Your task to perform on an android device: Open Google Chrome and click the shortcut for Amazon.com Image 0: 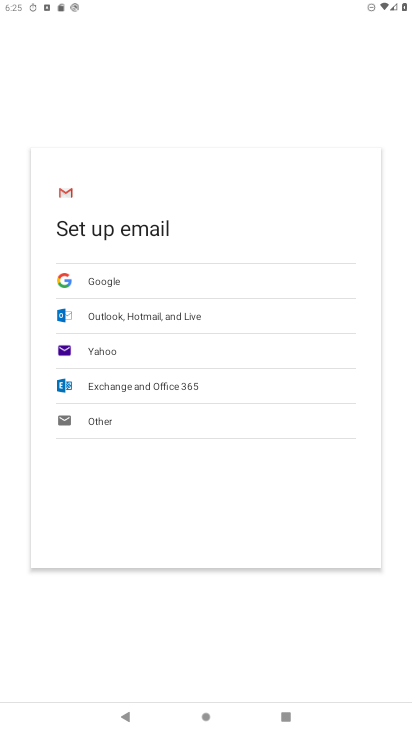
Step 0: press home button
Your task to perform on an android device: Open Google Chrome and click the shortcut for Amazon.com Image 1: 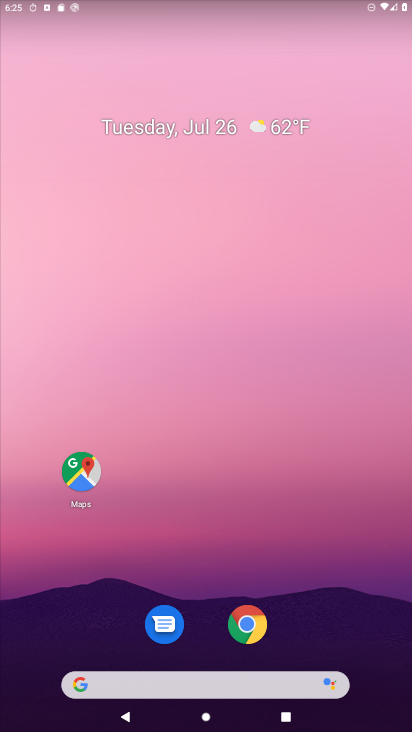
Step 1: drag from (264, 668) to (276, 14)
Your task to perform on an android device: Open Google Chrome and click the shortcut for Amazon.com Image 2: 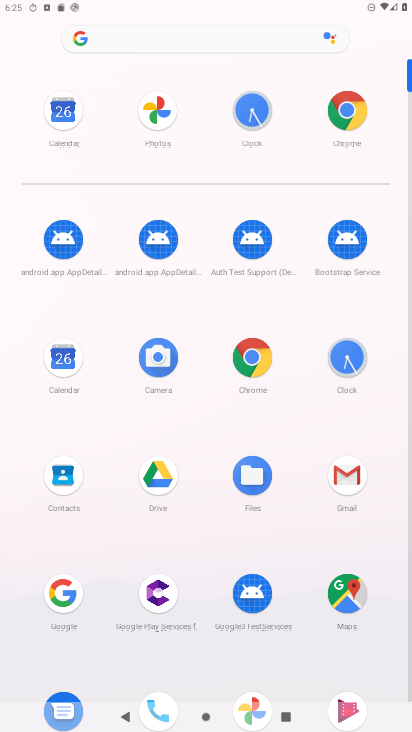
Step 2: click (259, 366)
Your task to perform on an android device: Open Google Chrome and click the shortcut for Amazon.com Image 3: 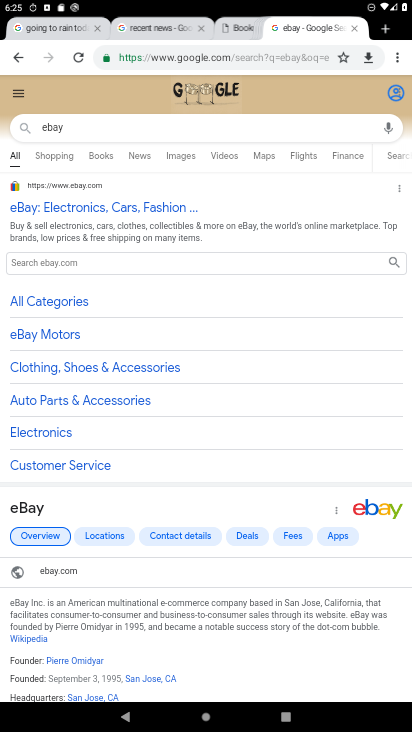
Step 3: click (398, 55)
Your task to perform on an android device: Open Google Chrome and click the shortcut for Amazon.com Image 4: 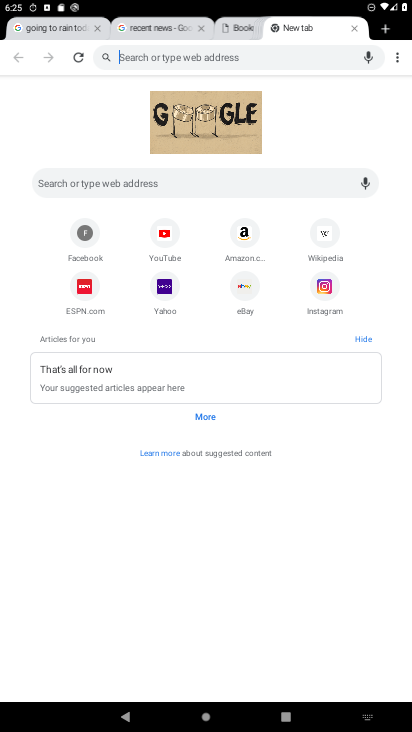
Step 4: click (237, 229)
Your task to perform on an android device: Open Google Chrome and click the shortcut for Amazon.com Image 5: 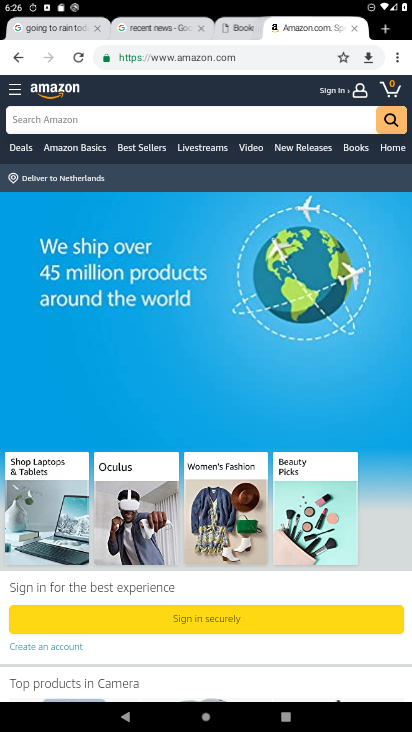
Step 5: click (398, 59)
Your task to perform on an android device: Open Google Chrome and click the shortcut for Amazon.com Image 6: 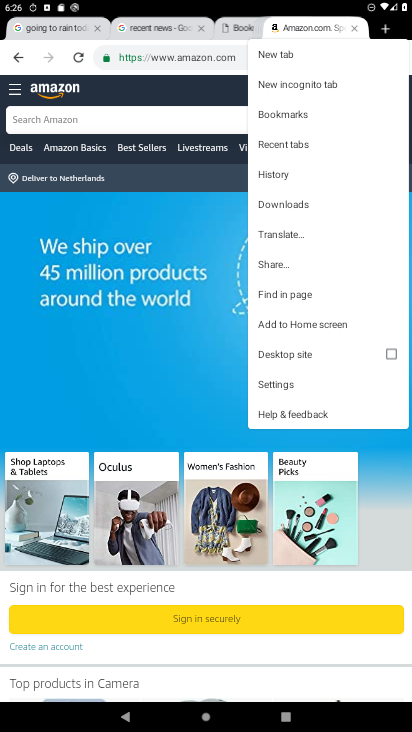
Step 6: click (313, 326)
Your task to perform on an android device: Open Google Chrome and click the shortcut for Amazon.com Image 7: 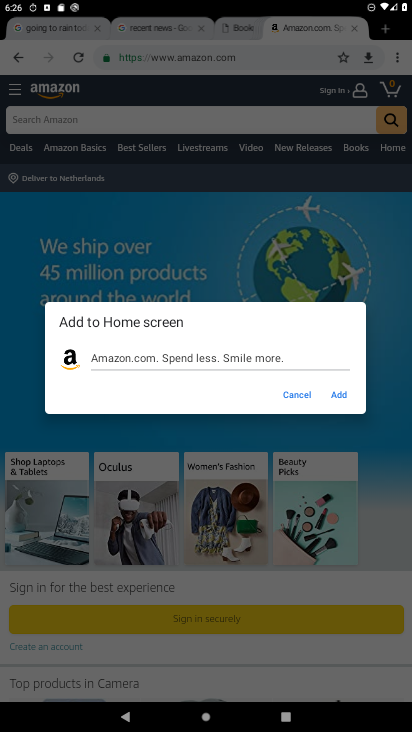
Step 7: click (338, 395)
Your task to perform on an android device: Open Google Chrome and click the shortcut for Amazon.com Image 8: 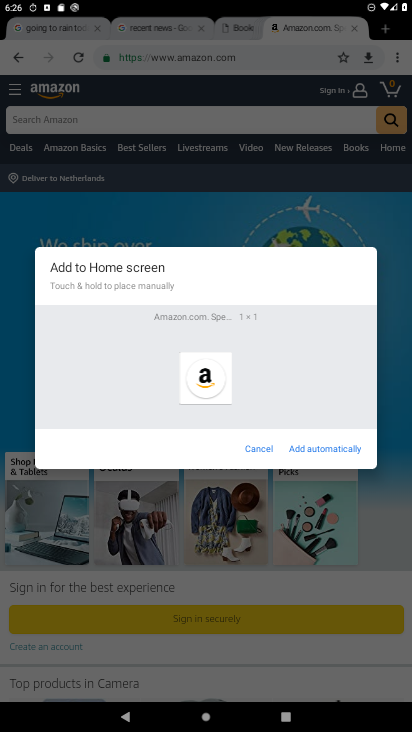
Step 8: click (327, 446)
Your task to perform on an android device: Open Google Chrome and click the shortcut for Amazon.com Image 9: 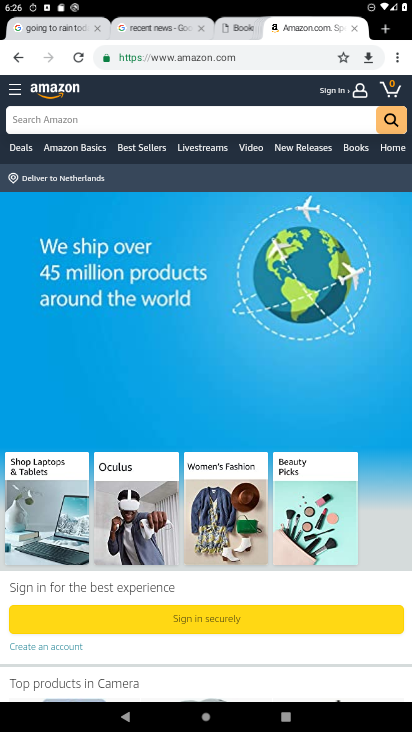
Step 9: task complete